Your task to perform on an android device: toggle notifications settings in the gmail app Image 0: 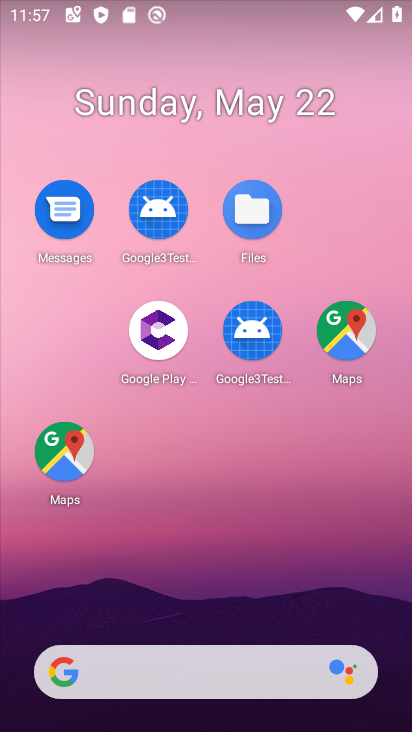
Step 0: drag from (252, 625) to (171, 124)
Your task to perform on an android device: toggle notifications settings in the gmail app Image 1: 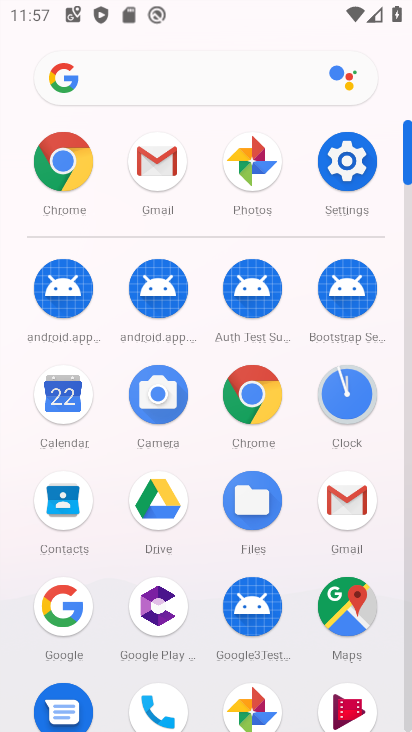
Step 1: click (361, 507)
Your task to perform on an android device: toggle notifications settings in the gmail app Image 2: 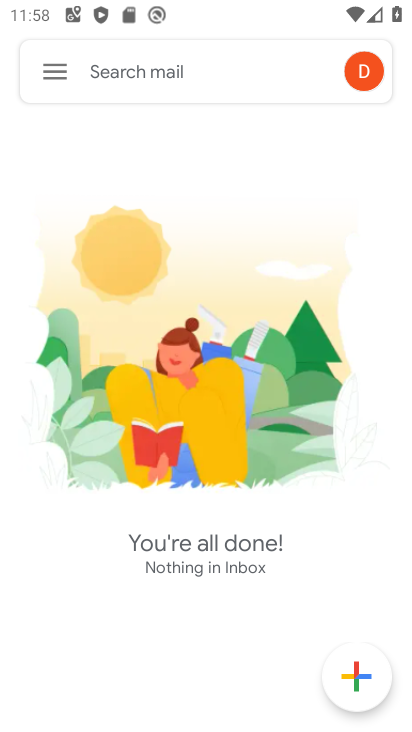
Step 2: click (48, 61)
Your task to perform on an android device: toggle notifications settings in the gmail app Image 3: 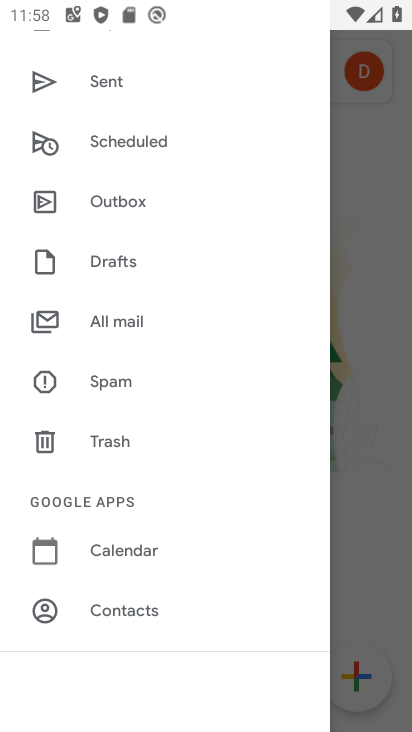
Step 3: drag from (137, 624) to (91, 214)
Your task to perform on an android device: toggle notifications settings in the gmail app Image 4: 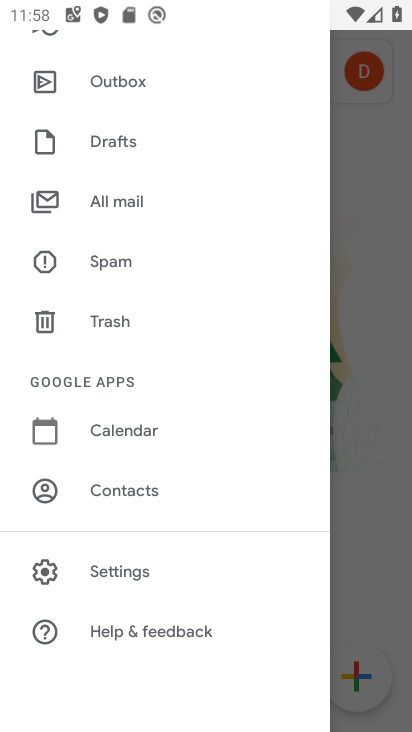
Step 4: click (104, 565)
Your task to perform on an android device: toggle notifications settings in the gmail app Image 5: 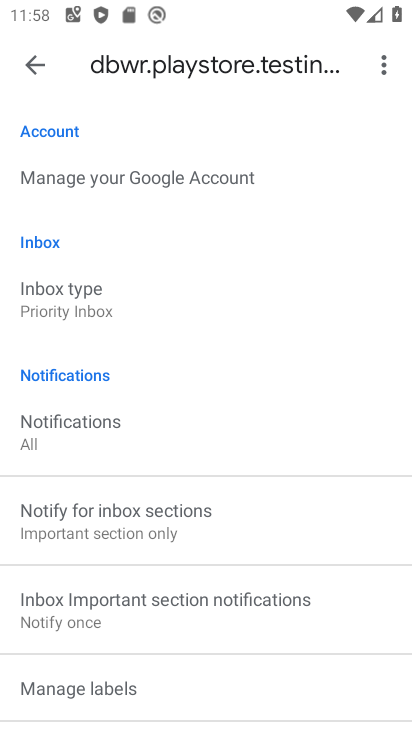
Step 5: click (36, 55)
Your task to perform on an android device: toggle notifications settings in the gmail app Image 6: 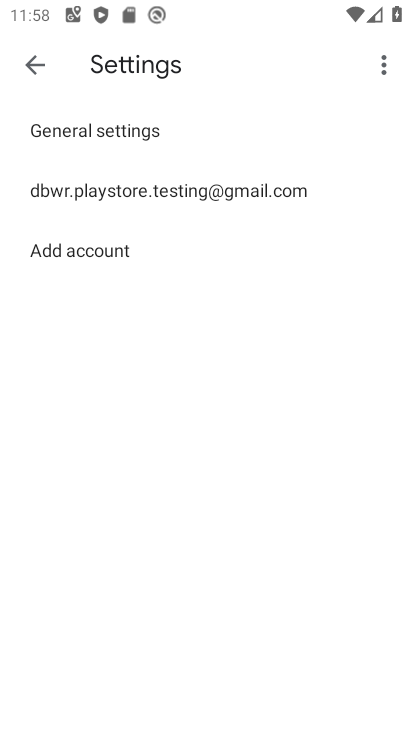
Step 6: click (67, 140)
Your task to perform on an android device: toggle notifications settings in the gmail app Image 7: 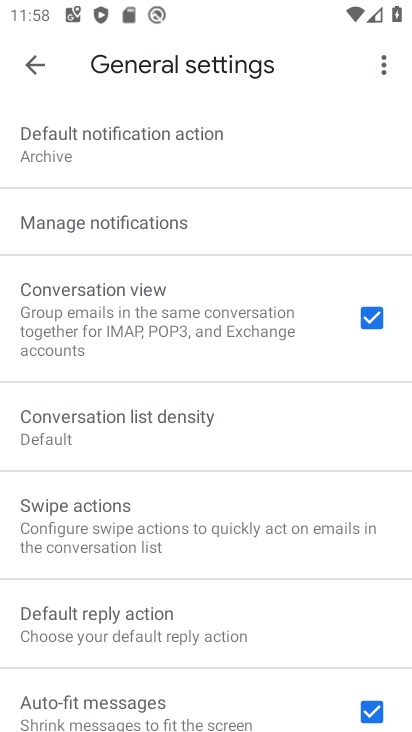
Step 7: click (208, 200)
Your task to perform on an android device: toggle notifications settings in the gmail app Image 8: 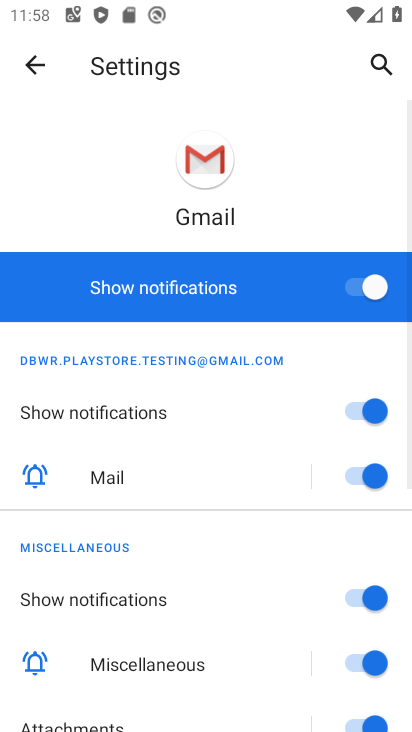
Step 8: click (372, 287)
Your task to perform on an android device: toggle notifications settings in the gmail app Image 9: 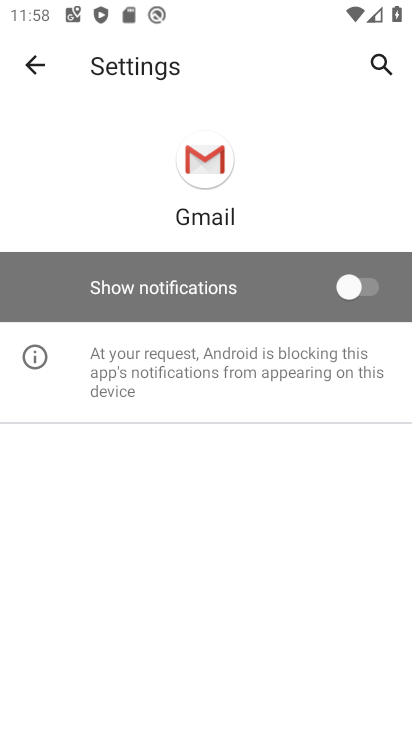
Step 9: task complete